Your task to perform on an android device: What is the news today? Image 0: 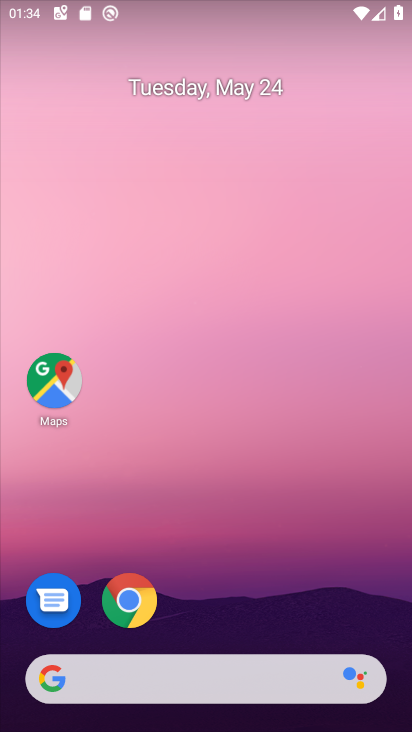
Step 0: drag from (194, 533) to (159, 184)
Your task to perform on an android device: What is the news today? Image 1: 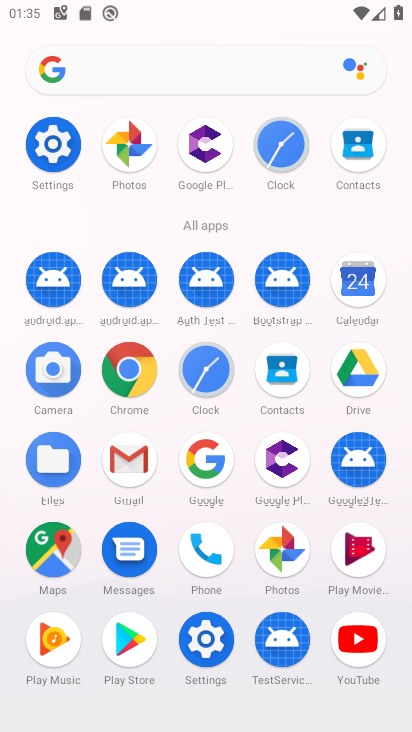
Step 1: click (199, 455)
Your task to perform on an android device: What is the news today? Image 2: 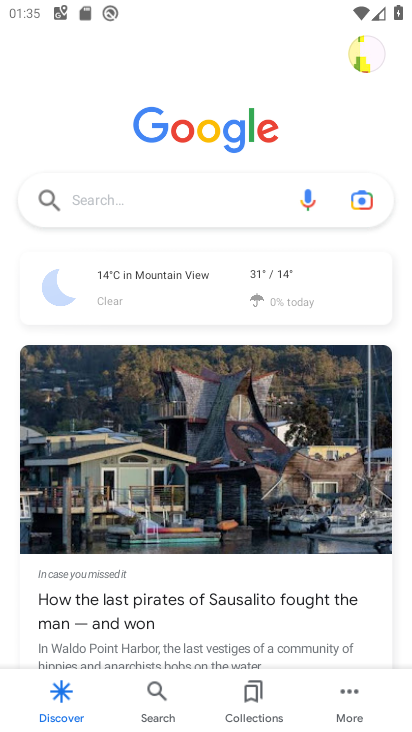
Step 2: click (113, 193)
Your task to perform on an android device: What is the news today? Image 3: 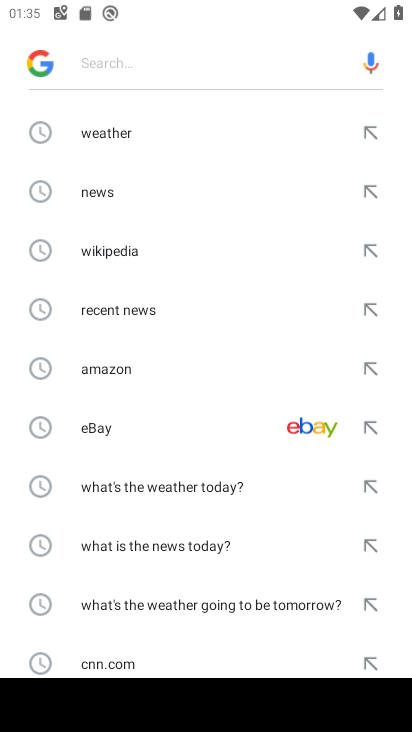
Step 3: click (108, 190)
Your task to perform on an android device: What is the news today? Image 4: 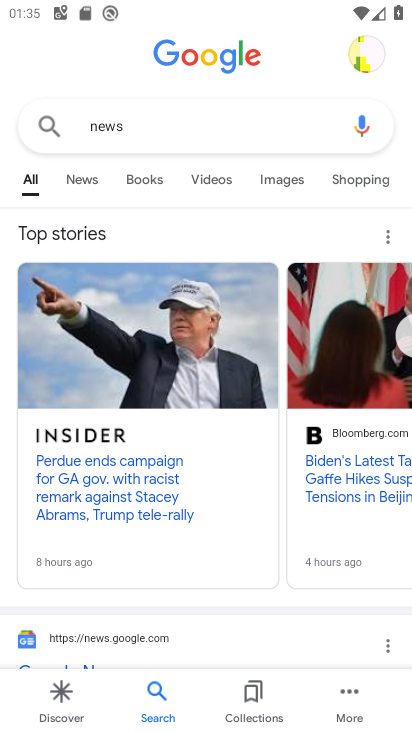
Step 4: press back button
Your task to perform on an android device: What is the news today? Image 5: 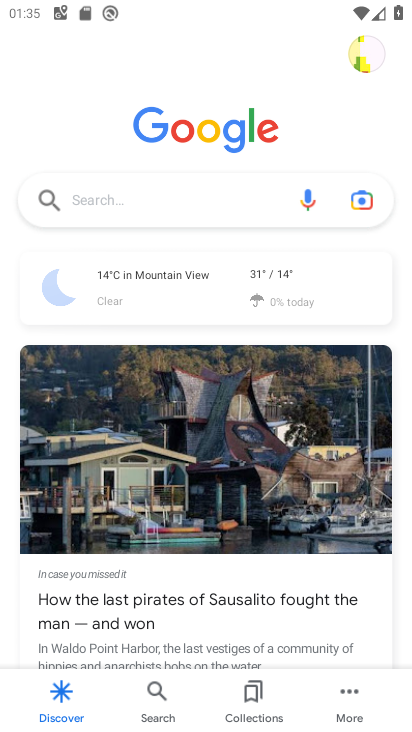
Step 5: click (238, 181)
Your task to perform on an android device: What is the news today? Image 6: 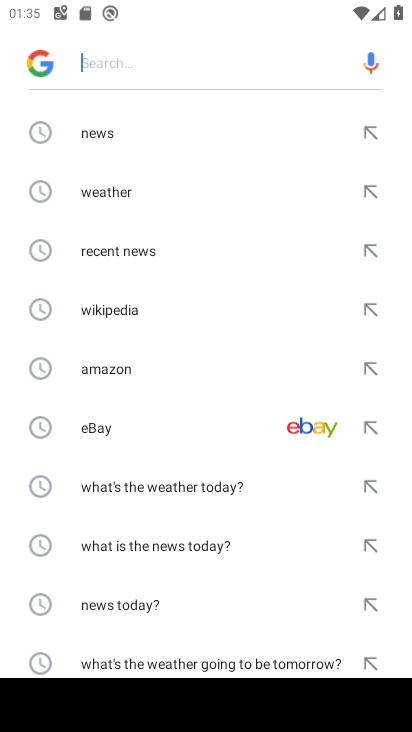
Step 6: click (206, 543)
Your task to perform on an android device: What is the news today? Image 7: 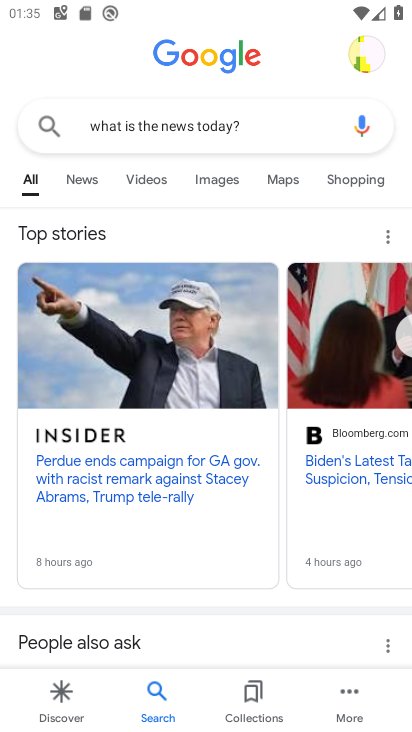
Step 7: task complete